Your task to perform on an android device: turn vacation reply on in the gmail app Image 0: 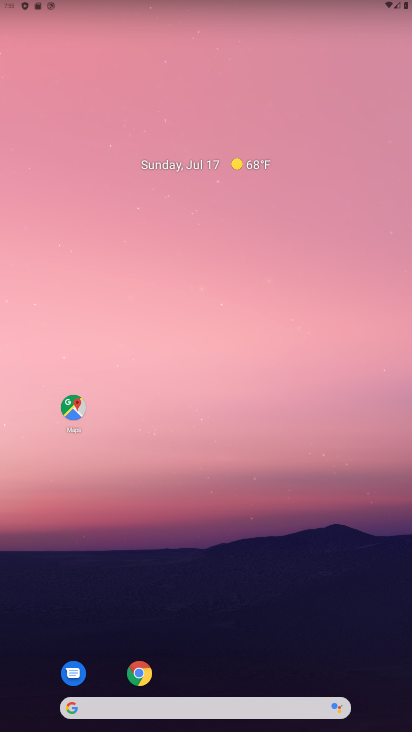
Step 0: drag from (288, 643) to (212, 81)
Your task to perform on an android device: turn vacation reply on in the gmail app Image 1: 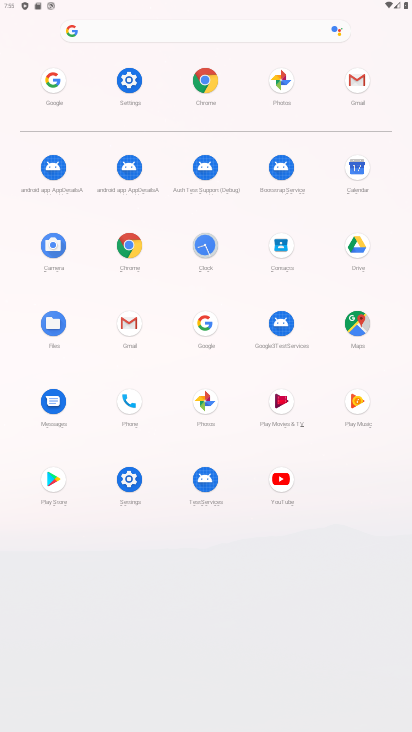
Step 1: click (357, 89)
Your task to perform on an android device: turn vacation reply on in the gmail app Image 2: 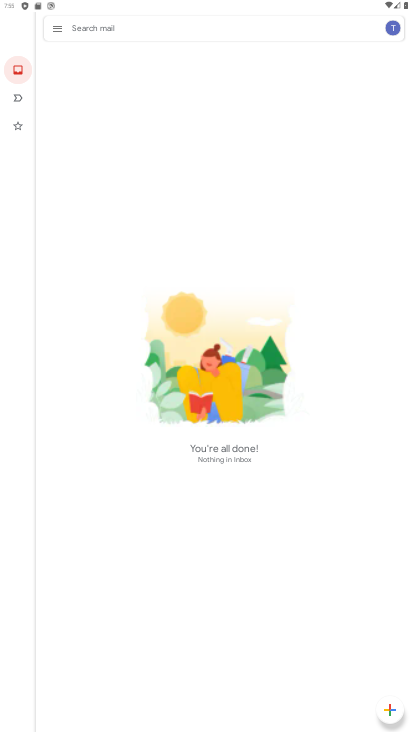
Step 2: click (59, 19)
Your task to perform on an android device: turn vacation reply on in the gmail app Image 3: 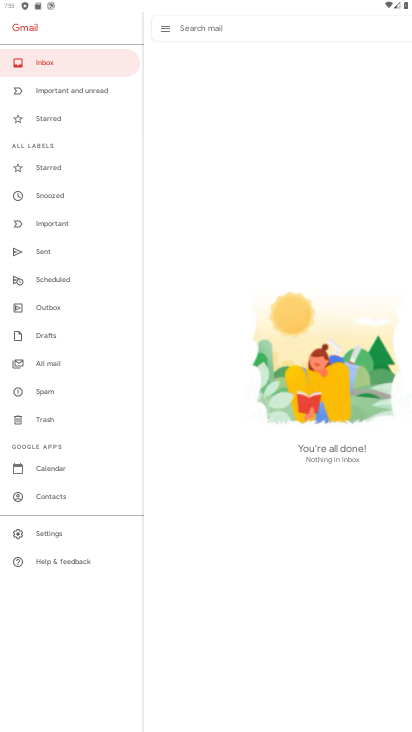
Step 3: click (64, 535)
Your task to perform on an android device: turn vacation reply on in the gmail app Image 4: 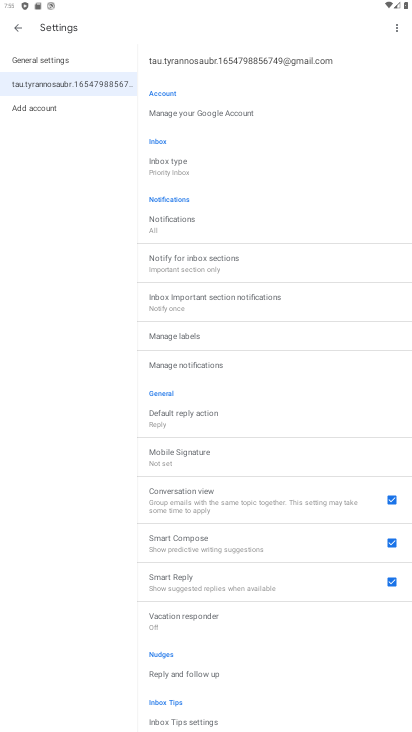
Step 4: click (207, 613)
Your task to perform on an android device: turn vacation reply on in the gmail app Image 5: 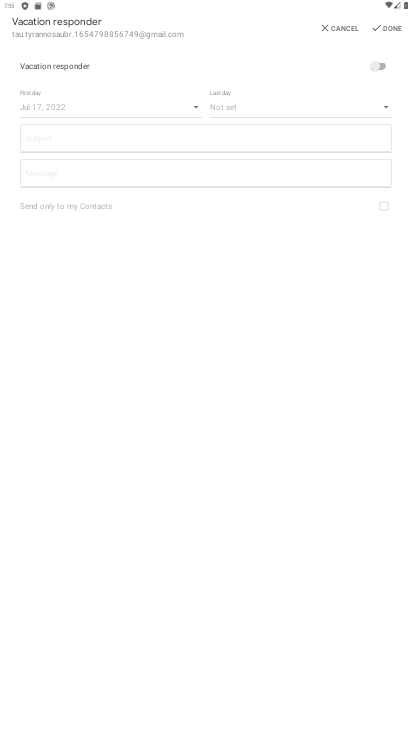
Step 5: click (379, 67)
Your task to perform on an android device: turn vacation reply on in the gmail app Image 6: 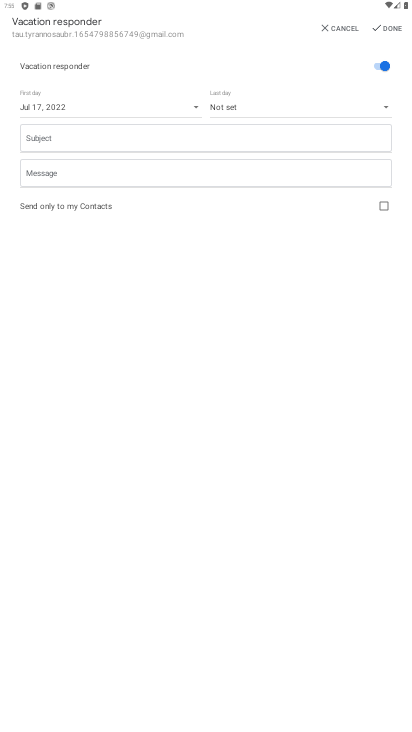
Step 6: task complete